Your task to perform on an android device: Go to CNN.com Image 0: 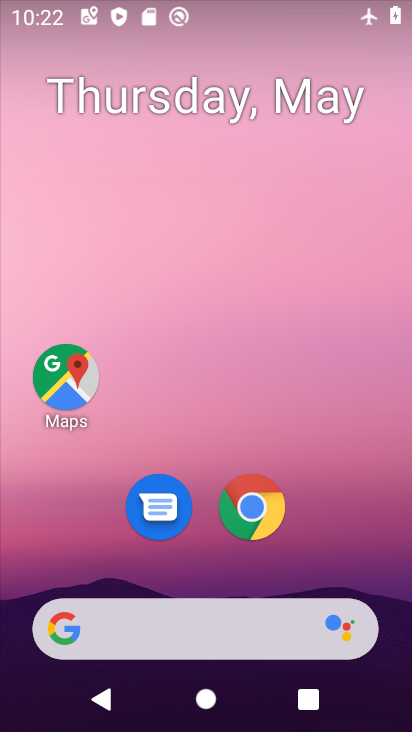
Step 0: drag from (229, 643) to (225, 96)
Your task to perform on an android device: Go to CNN.com Image 1: 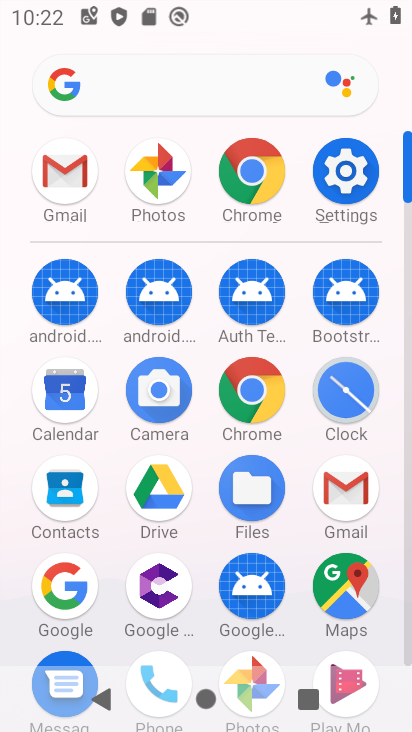
Step 1: click (260, 196)
Your task to perform on an android device: Go to CNN.com Image 2: 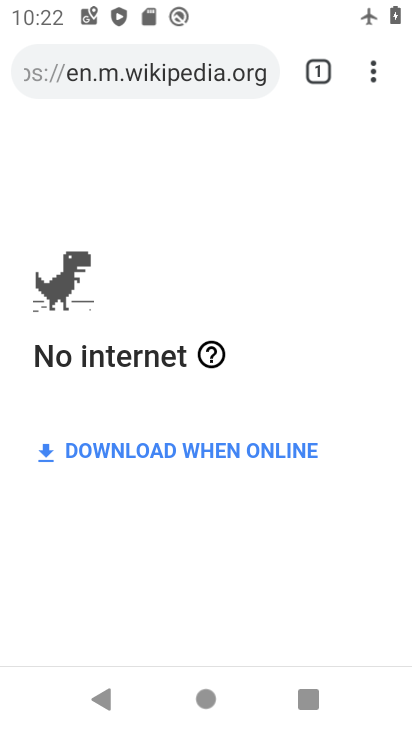
Step 2: click (213, 87)
Your task to perform on an android device: Go to CNN.com Image 3: 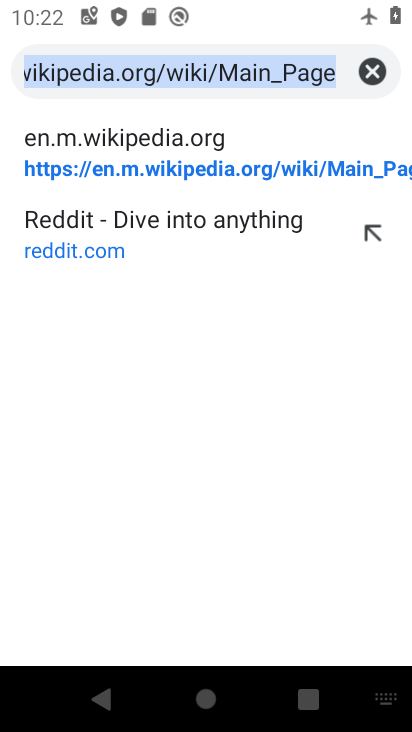
Step 3: type "cnn.com"
Your task to perform on an android device: Go to CNN.com Image 4: 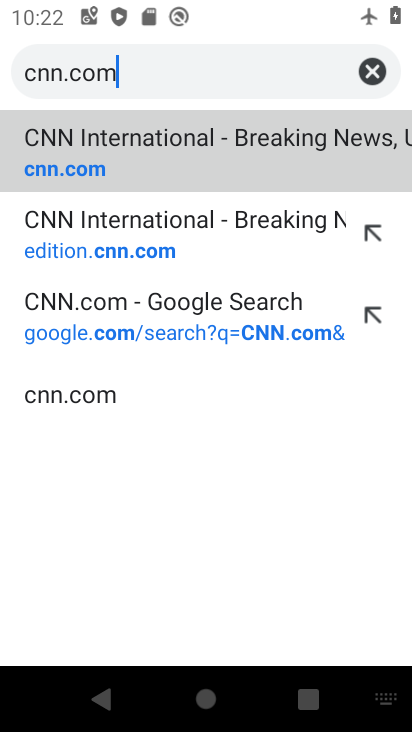
Step 4: click (191, 149)
Your task to perform on an android device: Go to CNN.com Image 5: 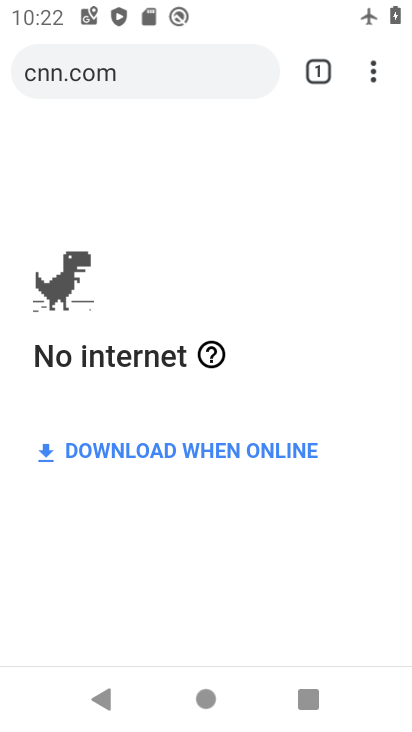
Step 5: task complete